Your task to perform on an android device: Open calendar and show me the first week of next month Image 0: 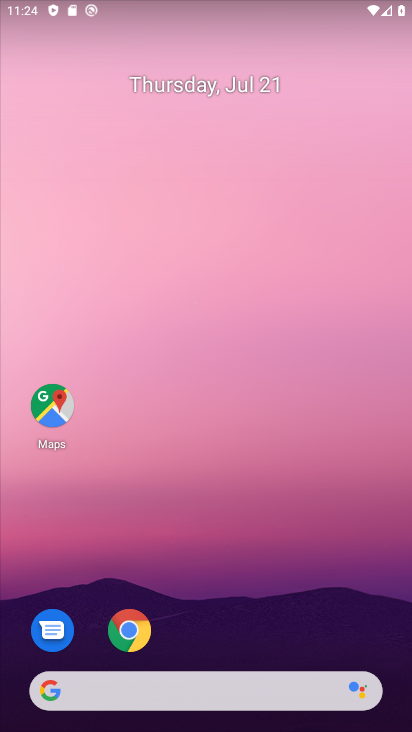
Step 0: press home button
Your task to perform on an android device: Open calendar and show me the first week of next month Image 1: 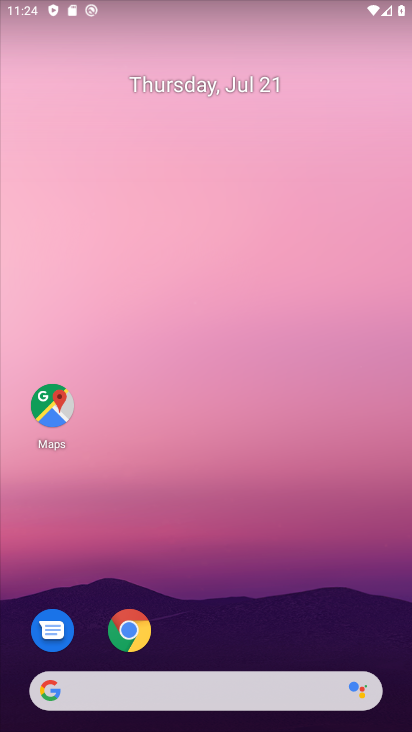
Step 1: drag from (313, 595) to (353, 77)
Your task to perform on an android device: Open calendar and show me the first week of next month Image 2: 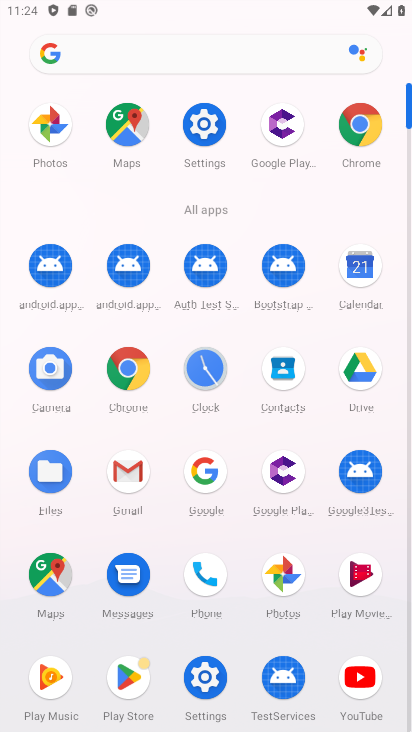
Step 2: click (360, 271)
Your task to perform on an android device: Open calendar and show me the first week of next month Image 3: 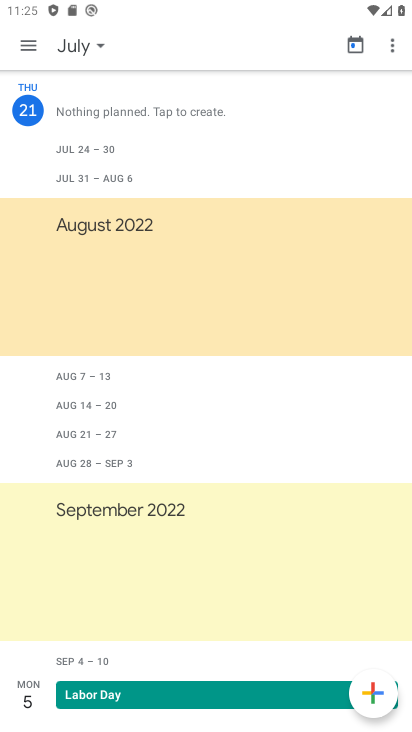
Step 3: click (23, 39)
Your task to perform on an android device: Open calendar and show me the first week of next month Image 4: 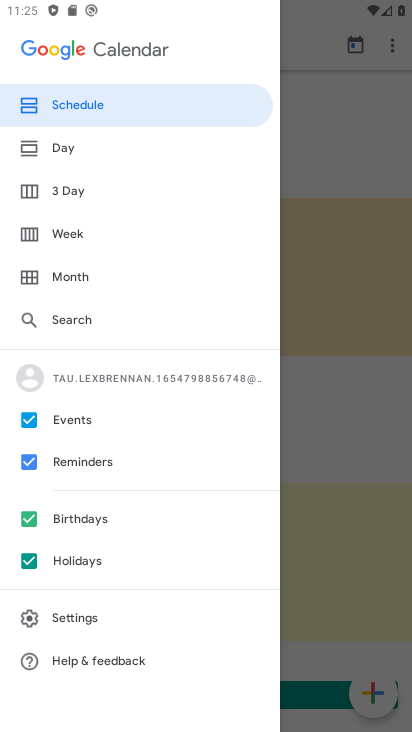
Step 4: click (80, 235)
Your task to perform on an android device: Open calendar and show me the first week of next month Image 5: 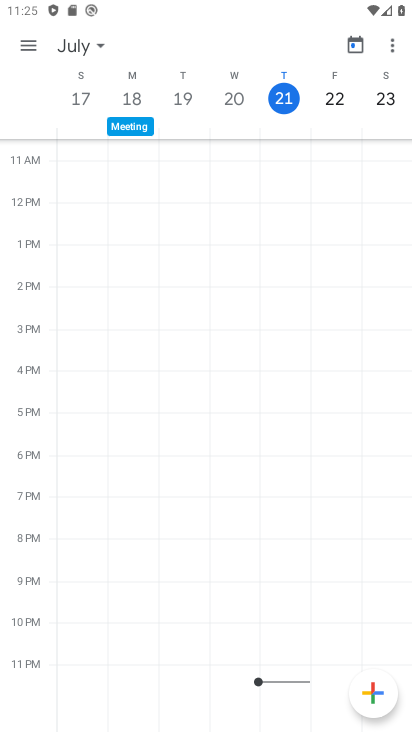
Step 5: task complete